Your task to perform on an android device: Show me productivity apps on the Play Store Image 0: 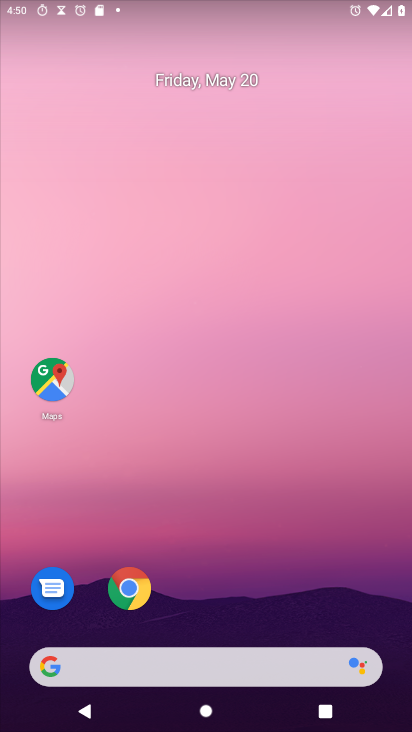
Step 0: drag from (250, 620) to (305, 130)
Your task to perform on an android device: Show me productivity apps on the Play Store Image 1: 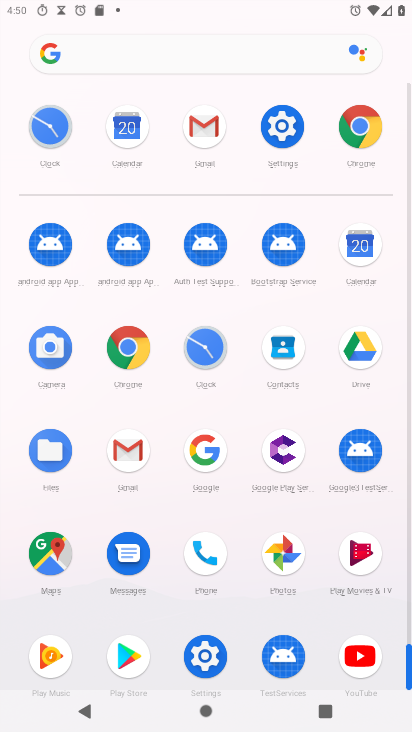
Step 1: click (124, 649)
Your task to perform on an android device: Show me productivity apps on the Play Store Image 2: 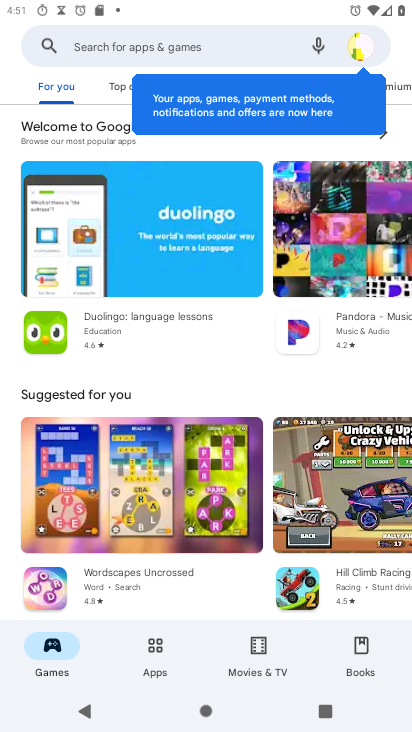
Step 2: click (207, 48)
Your task to perform on an android device: Show me productivity apps on the Play Store Image 3: 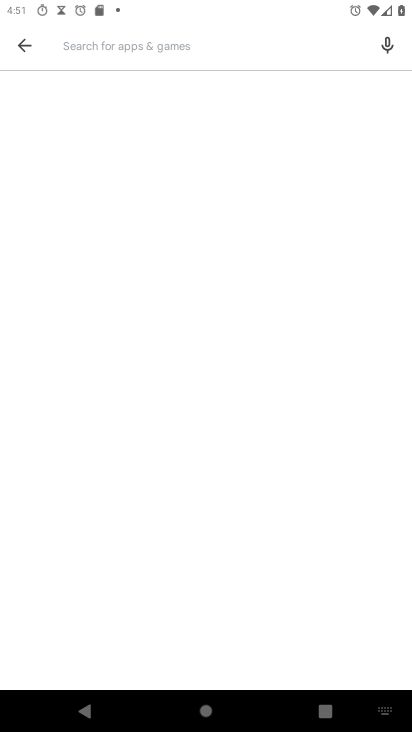
Step 3: type "productivity apps "
Your task to perform on an android device: Show me productivity apps on the Play Store Image 4: 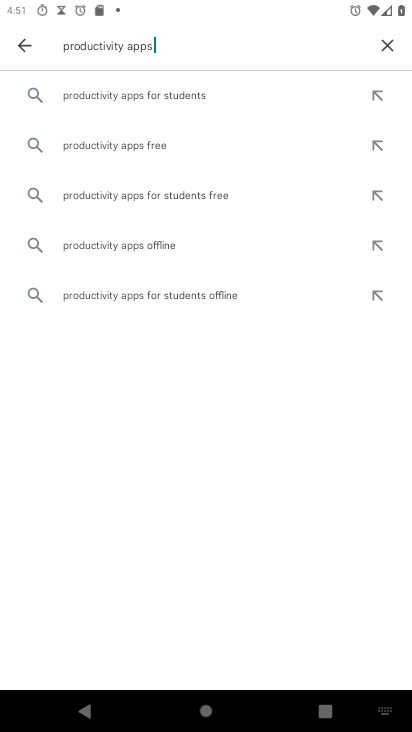
Step 4: click (130, 146)
Your task to perform on an android device: Show me productivity apps on the Play Store Image 5: 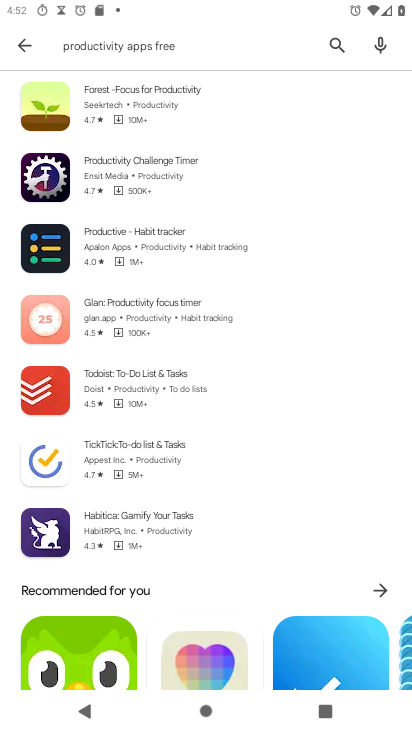
Step 5: task complete